Your task to perform on an android device: Open the calendar and show me this week's events? Image 0: 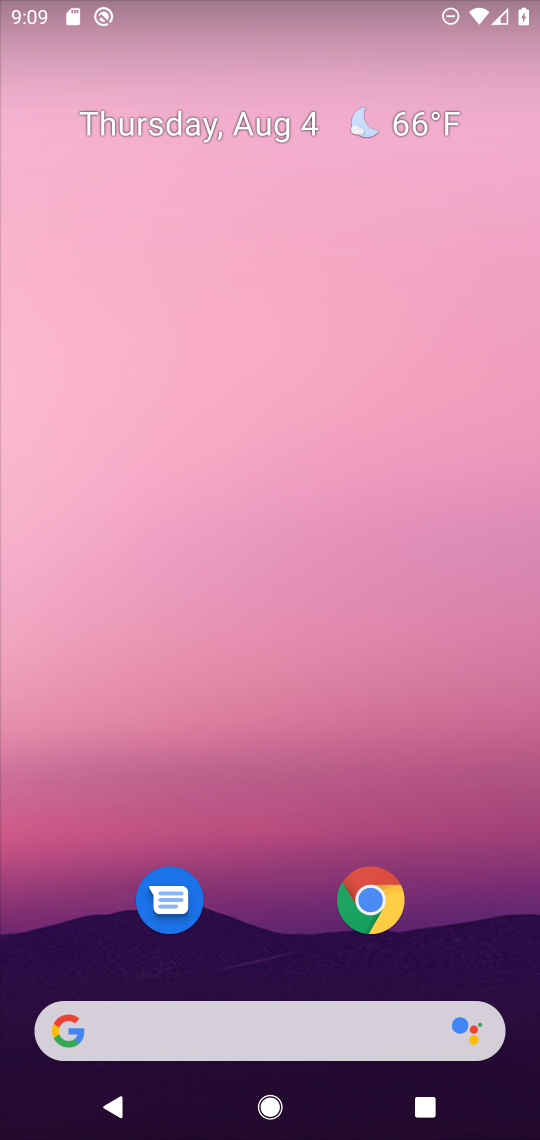
Step 0: click (271, 339)
Your task to perform on an android device: Open the calendar and show me this week's events? Image 1: 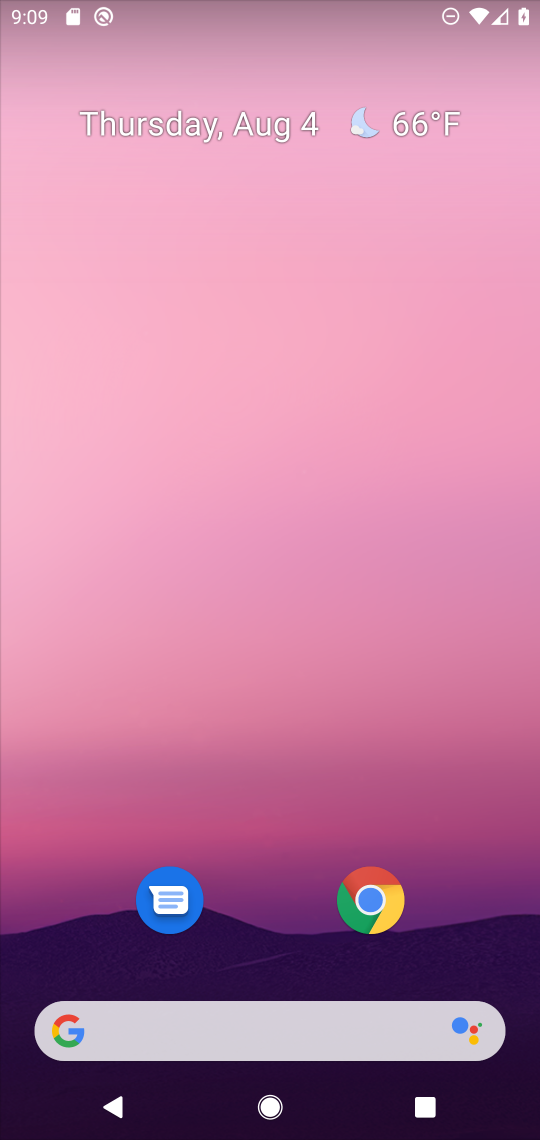
Step 1: drag from (274, 858) to (280, 216)
Your task to perform on an android device: Open the calendar and show me this week's events? Image 2: 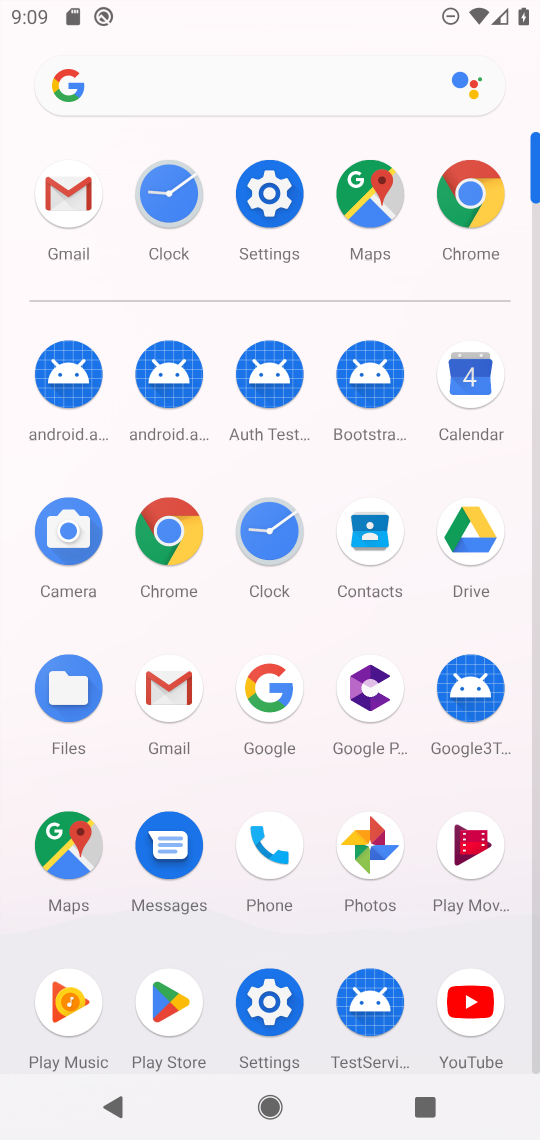
Step 2: click (464, 404)
Your task to perform on an android device: Open the calendar and show me this week's events? Image 3: 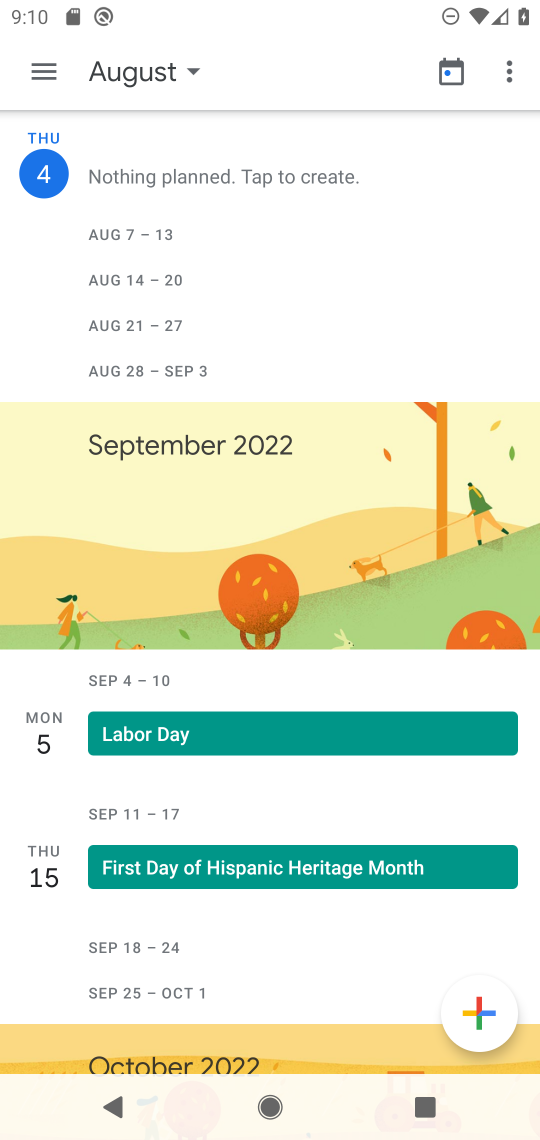
Step 3: click (43, 76)
Your task to perform on an android device: Open the calendar and show me this week's events? Image 4: 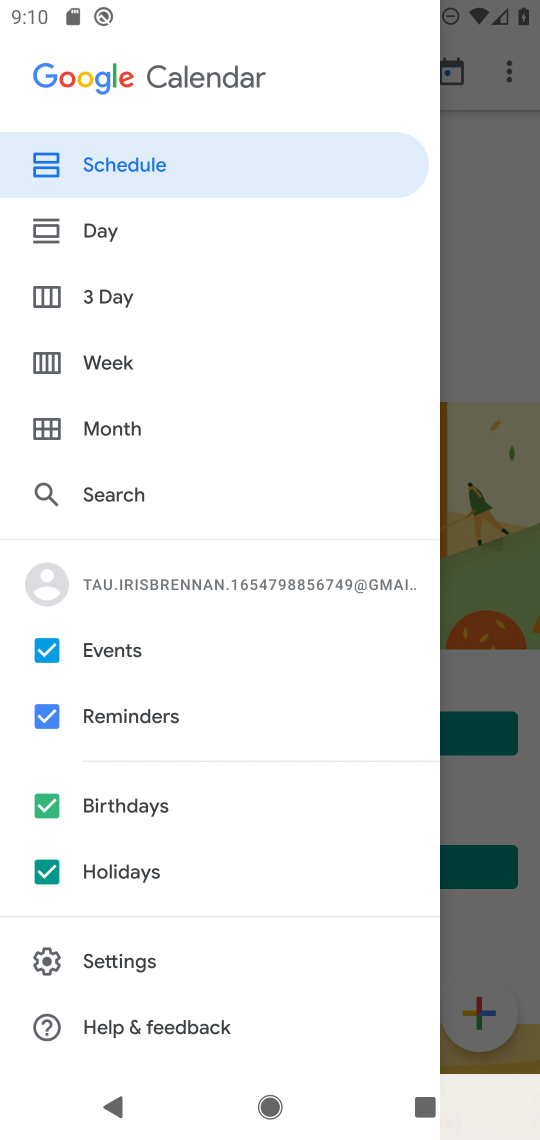
Step 4: click (101, 365)
Your task to perform on an android device: Open the calendar and show me this week's events? Image 5: 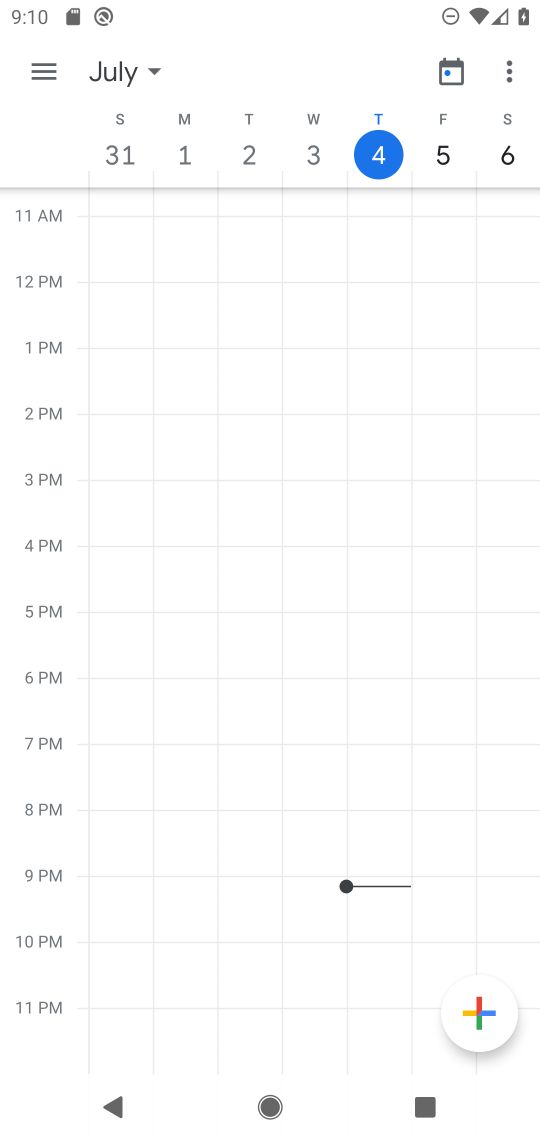
Step 5: task complete